Your task to perform on an android device: Open Wikipedia Image 0: 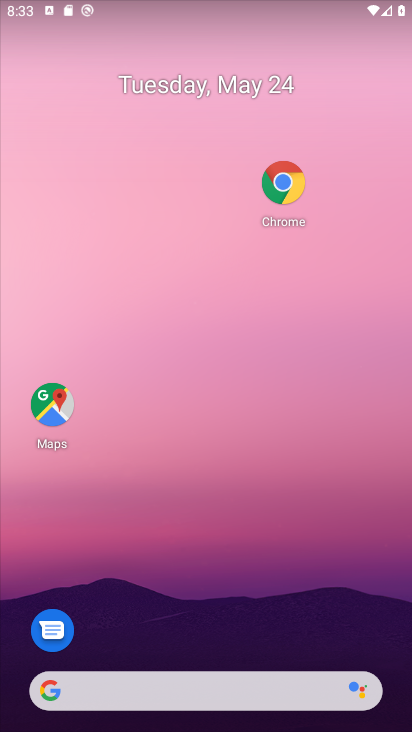
Step 0: drag from (214, 625) to (266, 114)
Your task to perform on an android device: Open Wikipedia Image 1: 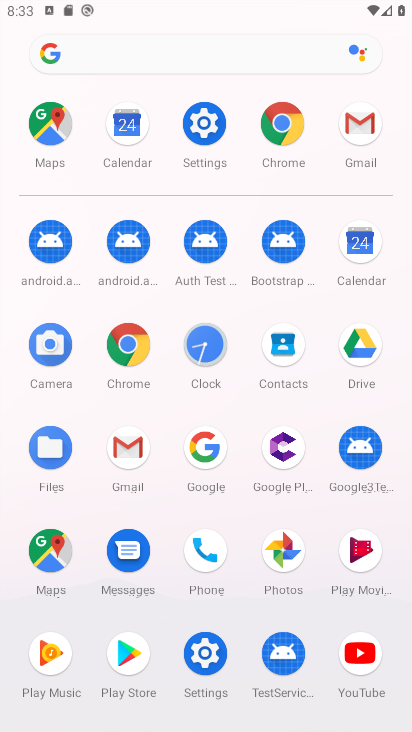
Step 1: click (294, 140)
Your task to perform on an android device: Open Wikipedia Image 2: 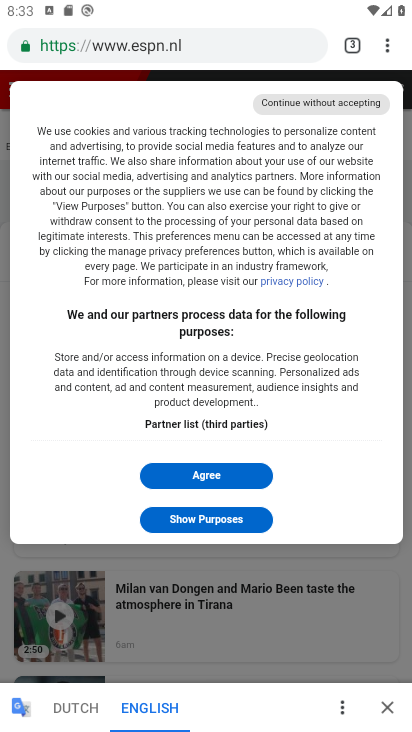
Step 2: click (202, 480)
Your task to perform on an android device: Open Wikipedia Image 3: 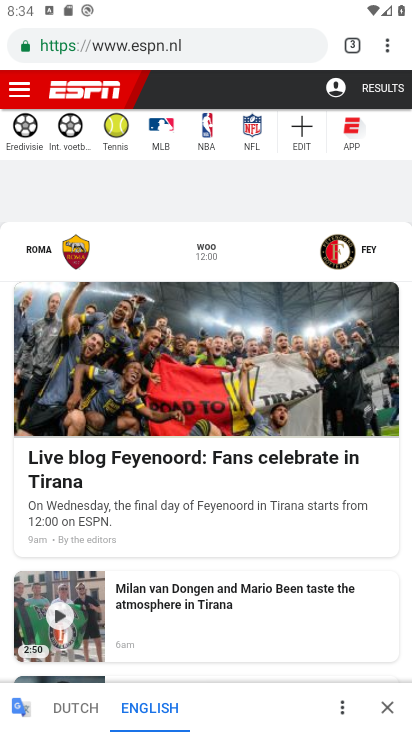
Step 3: click (350, 39)
Your task to perform on an android device: Open Wikipedia Image 4: 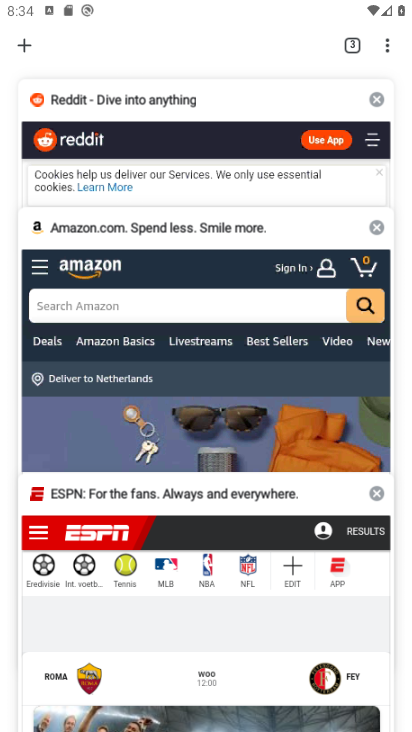
Step 4: click (25, 46)
Your task to perform on an android device: Open Wikipedia Image 5: 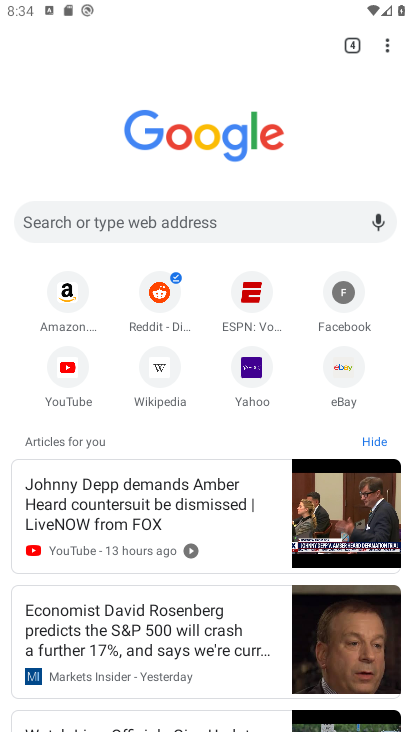
Step 5: click (161, 369)
Your task to perform on an android device: Open Wikipedia Image 6: 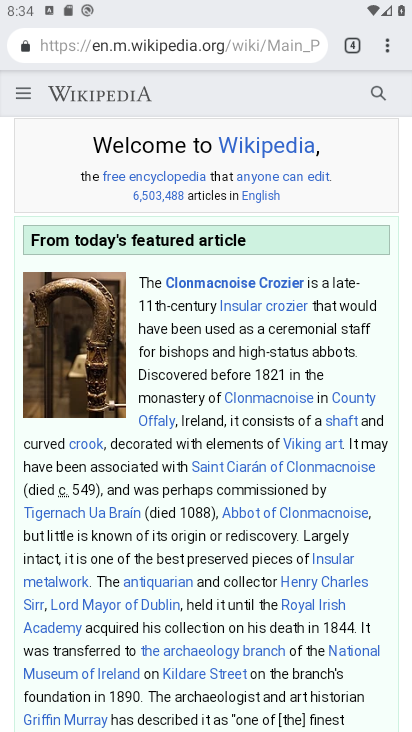
Step 6: task complete